Your task to perform on an android device: add a contact in the contacts app Image 0: 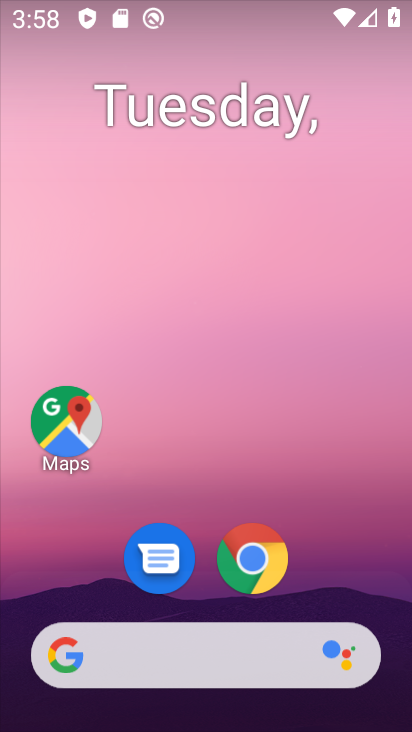
Step 0: drag from (335, 607) to (273, 162)
Your task to perform on an android device: add a contact in the contacts app Image 1: 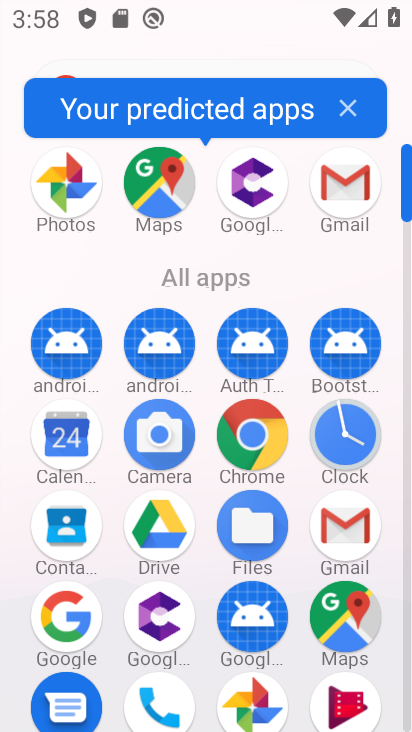
Step 1: click (85, 509)
Your task to perform on an android device: add a contact in the contacts app Image 2: 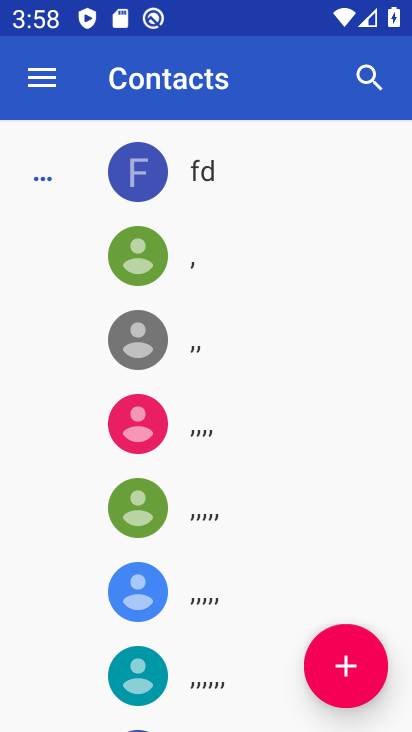
Step 2: click (348, 677)
Your task to perform on an android device: add a contact in the contacts app Image 3: 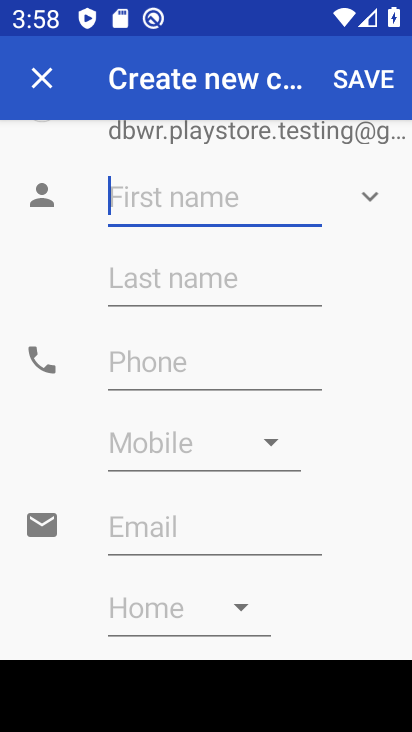
Step 3: click (222, 195)
Your task to perform on an android device: add a contact in the contacts app Image 4: 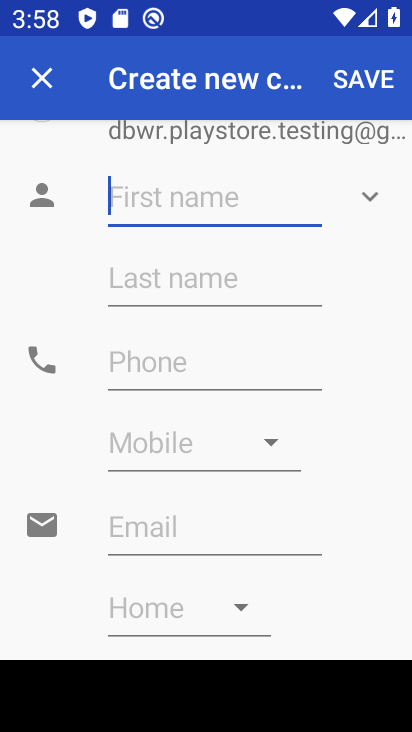
Step 4: type "kbsdkb"
Your task to perform on an android device: add a contact in the contacts app Image 5: 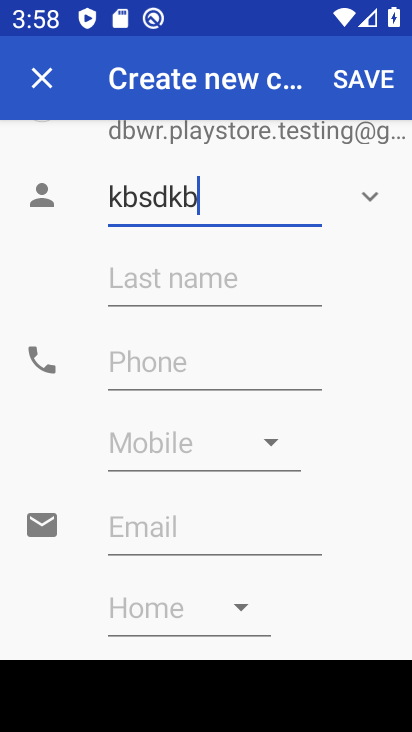
Step 5: click (194, 362)
Your task to perform on an android device: add a contact in the contacts app Image 6: 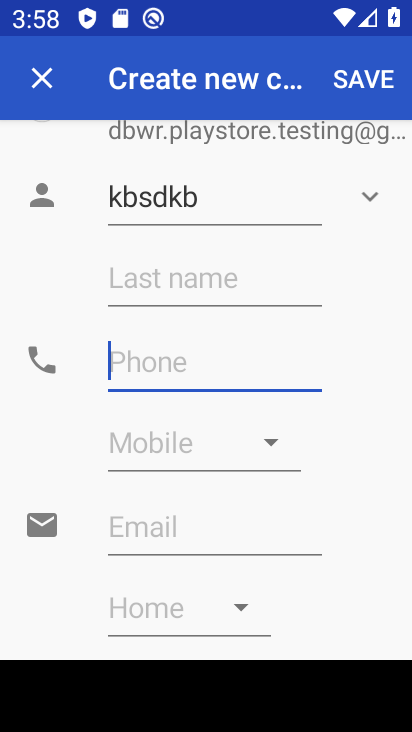
Step 6: type "79798789"
Your task to perform on an android device: add a contact in the contacts app Image 7: 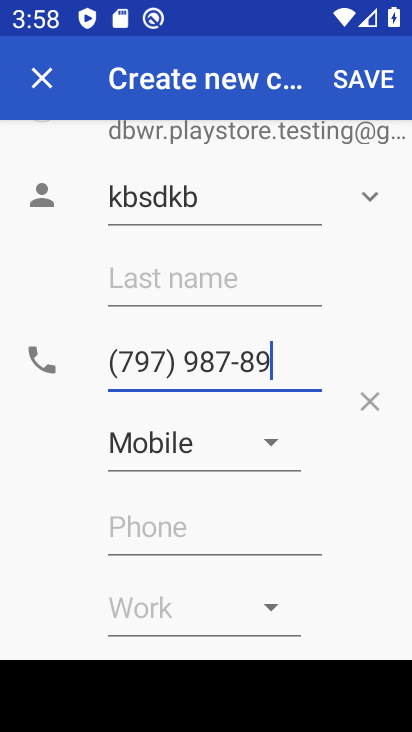
Step 7: click (354, 89)
Your task to perform on an android device: add a contact in the contacts app Image 8: 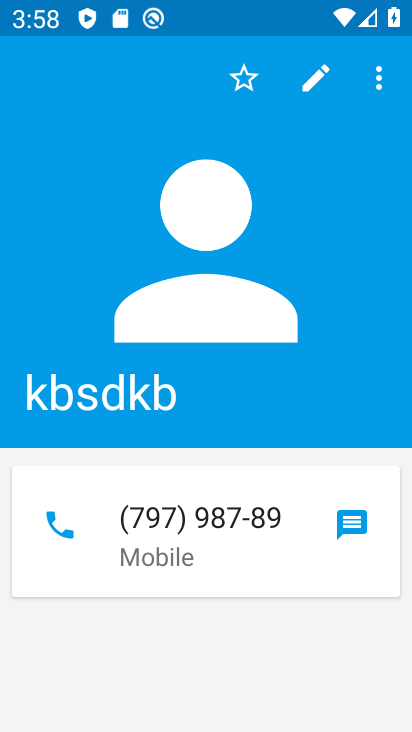
Step 8: task complete